Your task to perform on an android device: open chrome privacy settings Image 0: 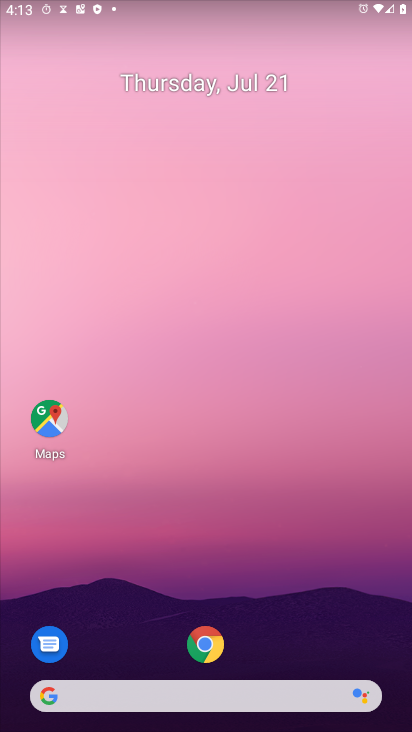
Step 0: press home button
Your task to perform on an android device: open chrome privacy settings Image 1: 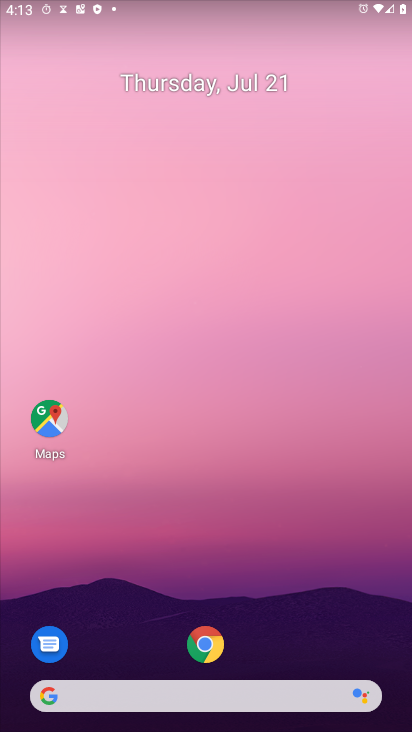
Step 1: drag from (266, 649) to (228, 148)
Your task to perform on an android device: open chrome privacy settings Image 2: 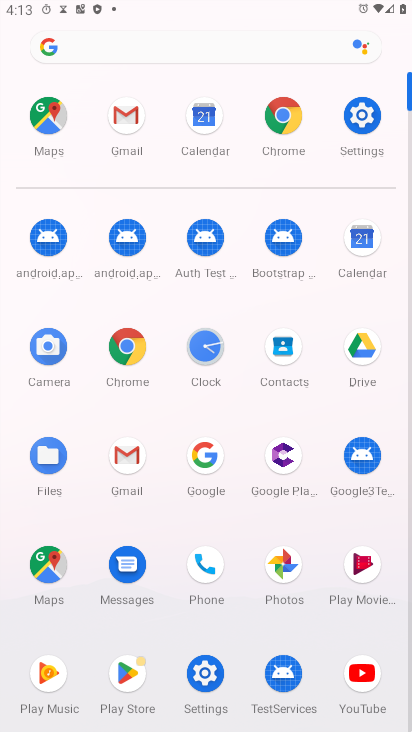
Step 2: click (277, 118)
Your task to perform on an android device: open chrome privacy settings Image 3: 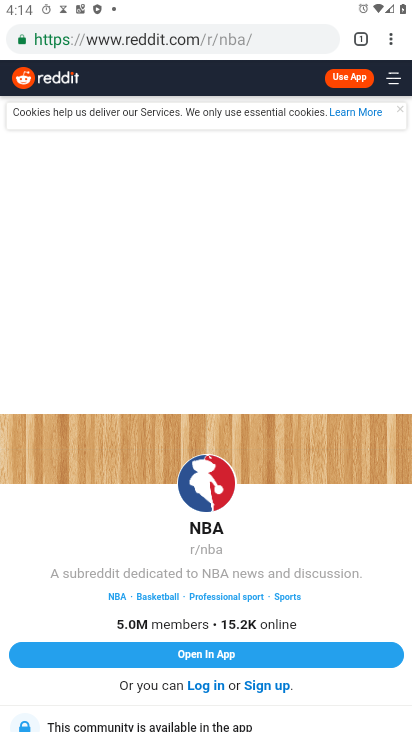
Step 3: drag from (392, 40) to (250, 526)
Your task to perform on an android device: open chrome privacy settings Image 4: 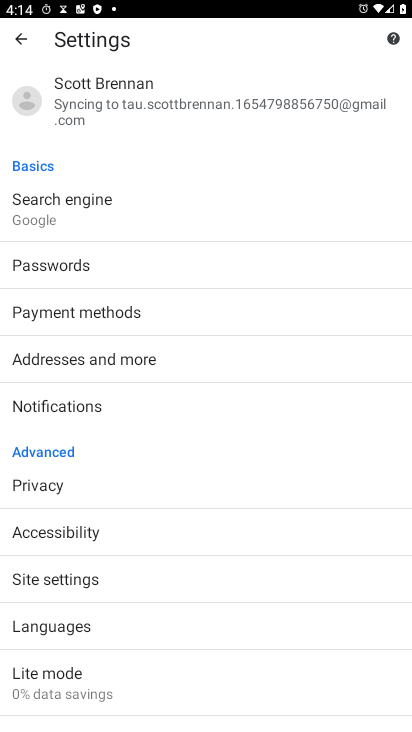
Step 4: click (43, 480)
Your task to perform on an android device: open chrome privacy settings Image 5: 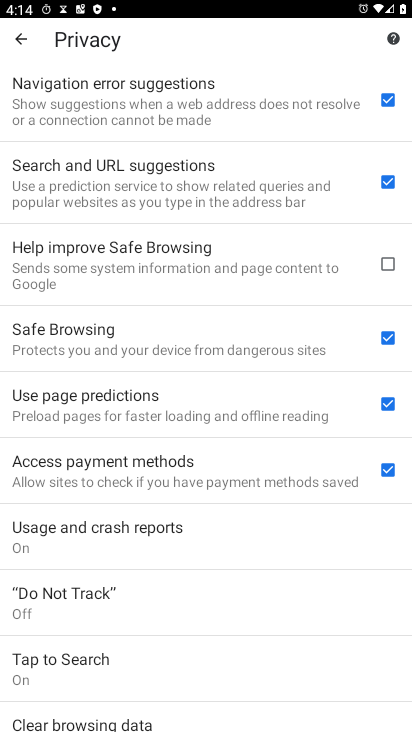
Step 5: task complete